Your task to perform on an android device: add a contact Image 0: 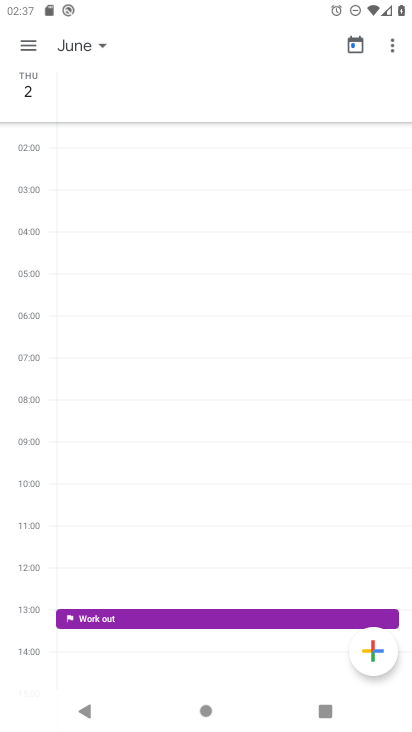
Step 0: press home button
Your task to perform on an android device: add a contact Image 1: 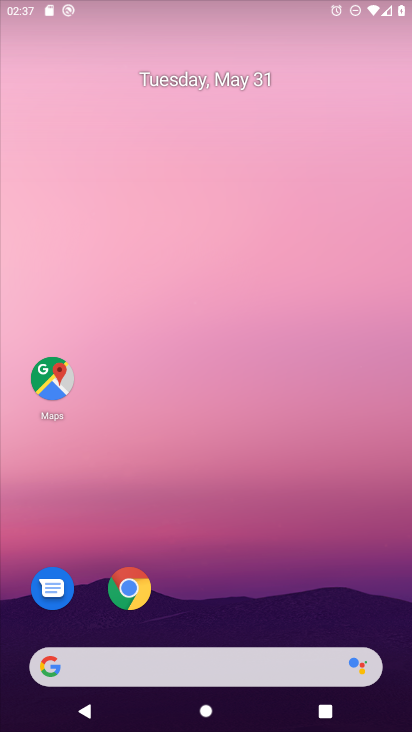
Step 1: drag from (299, 651) to (365, 57)
Your task to perform on an android device: add a contact Image 2: 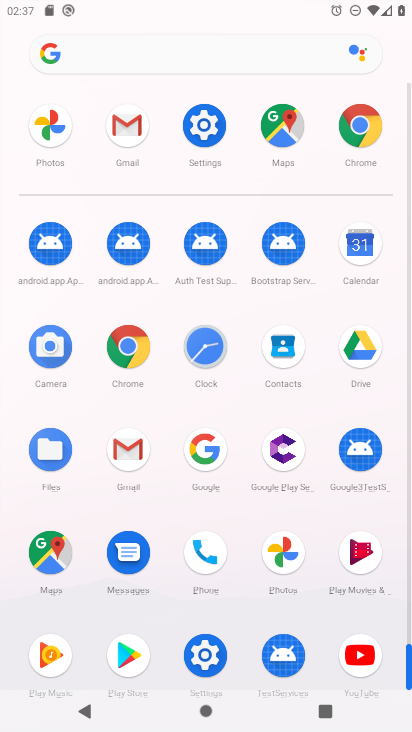
Step 2: click (278, 349)
Your task to perform on an android device: add a contact Image 3: 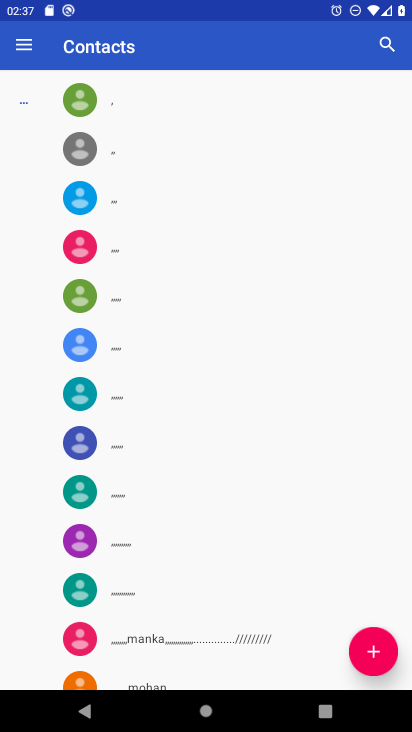
Step 3: click (372, 657)
Your task to perform on an android device: add a contact Image 4: 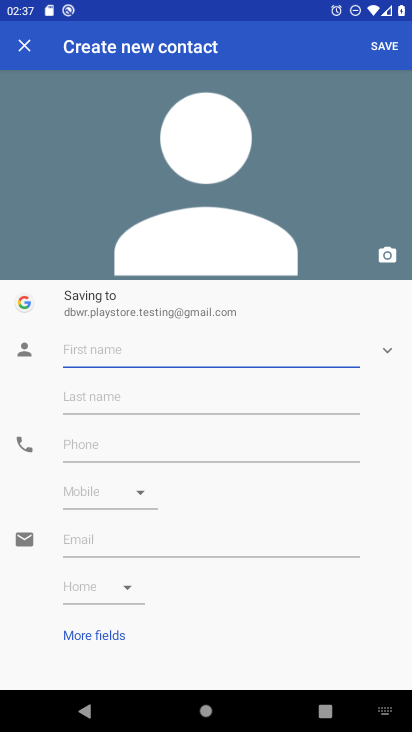
Step 4: type "dfdsdds"
Your task to perform on an android device: add a contact Image 5: 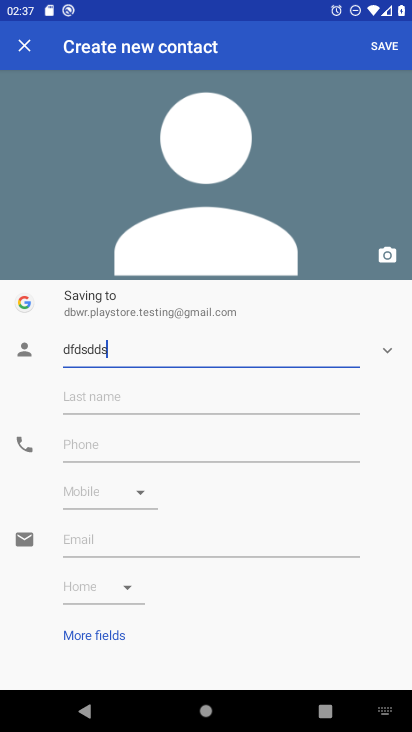
Step 5: click (210, 453)
Your task to perform on an android device: add a contact Image 6: 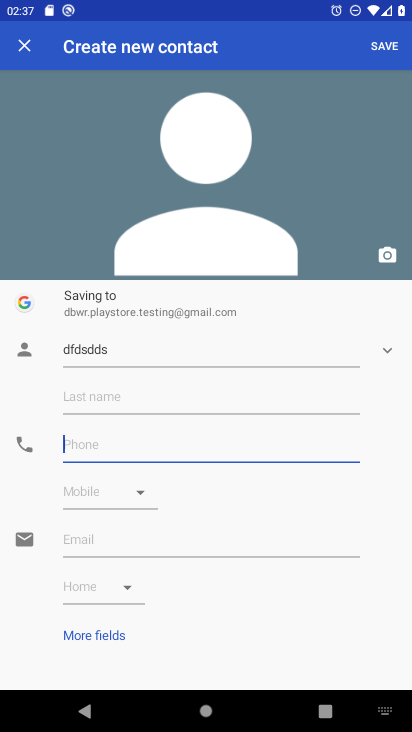
Step 6: type "989757778876"
Your task to perform on an android device: add a contact Image 7: 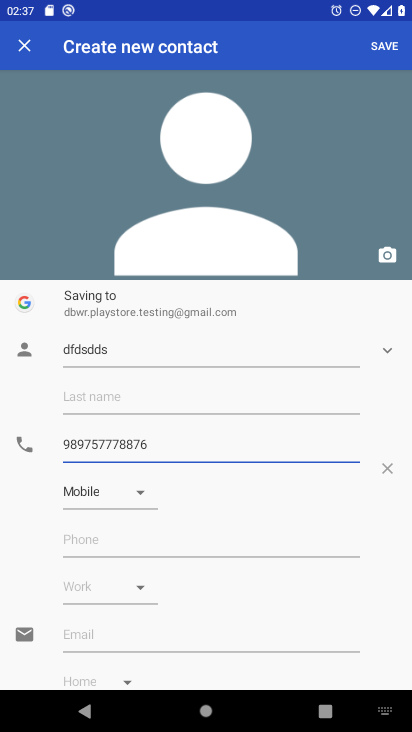
Step 7: click (378, 43)
Your task to perform on an android device: add a contact Image 8: 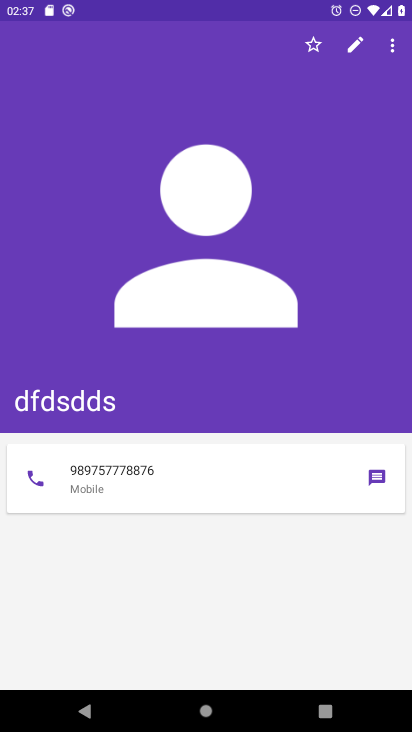
Step 8: task complete